Your task to perform on an android device: Go to Yahoo.com Image 0: 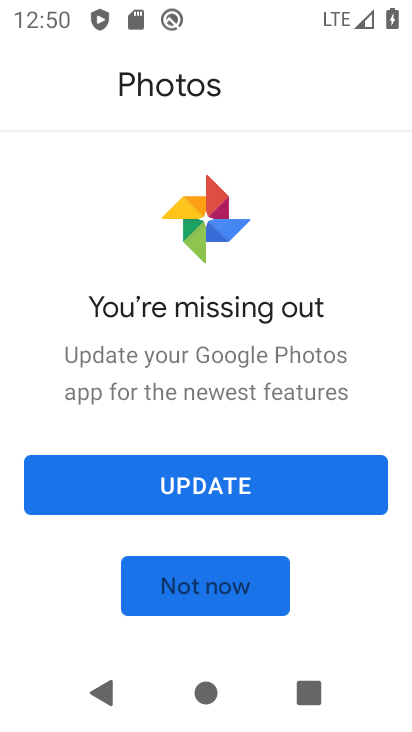
Step 0: press home button
Your task to perform on an android device: Go to Yahoo.com Image 1: 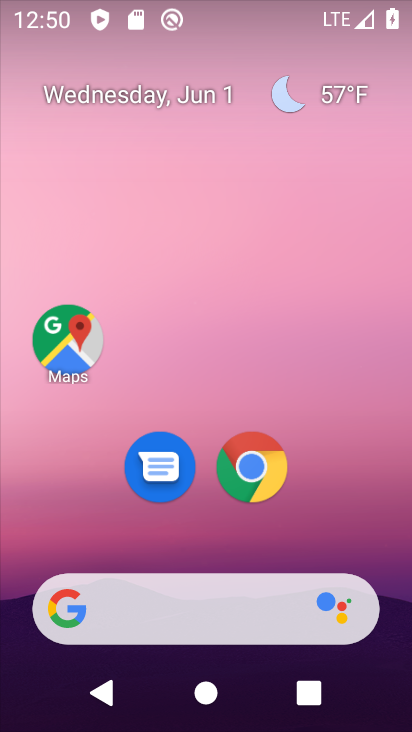
Step 1: drag from (377, 529) to (370, 170)
Your task to perform on an android device: Go to Yahoo.com Image 2: 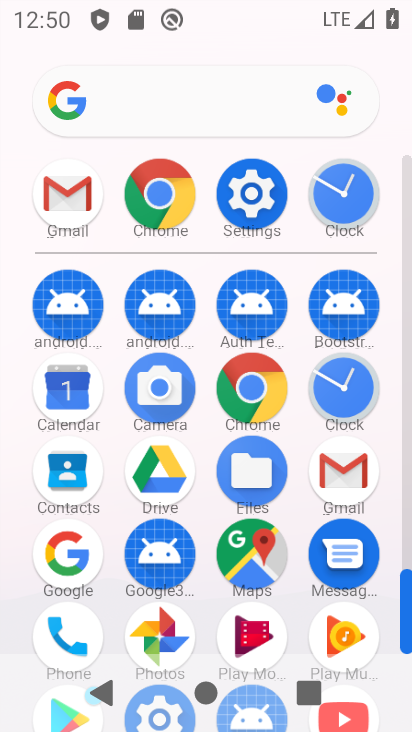
Step 2: click (262, 400)
Your task to perform on an android device: Go to Yahoo.com Image 3: 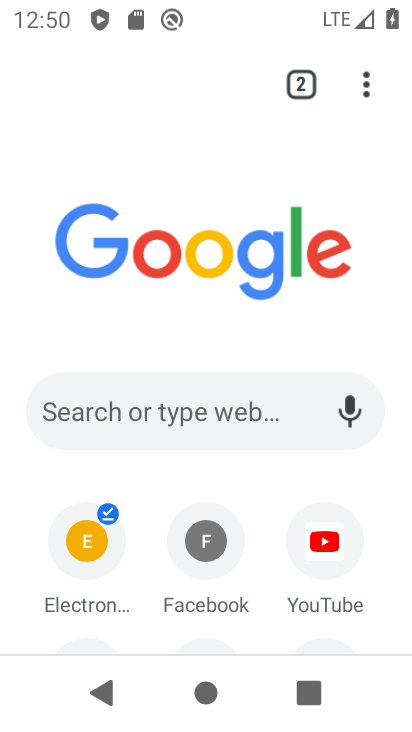
Step 3: drag from (268, 472) to (274, 308)
Your task to perform on an android device: Go to Yahoo.com Image 4: 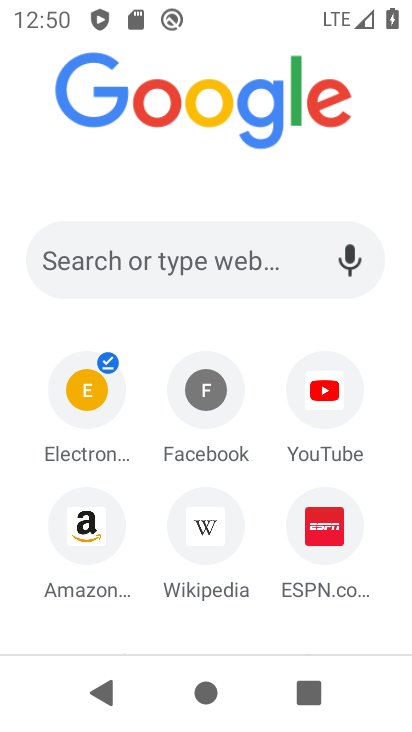
Step 4: click (214, 272)
Your task to perform on an android device: Go to Yahoo.com Image 5: 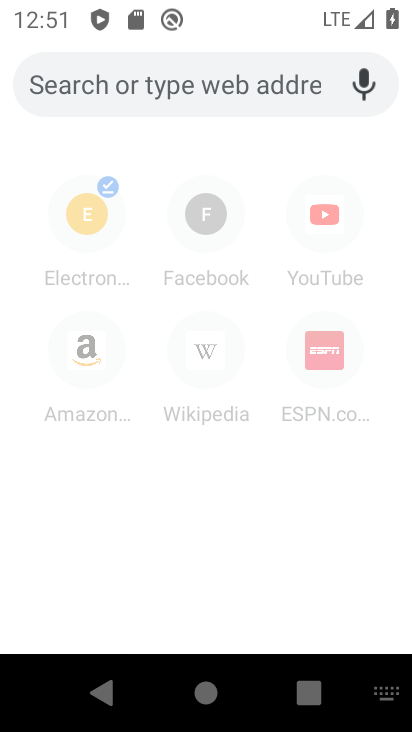
Step 5: type "yahoo.com"
Your task to perform on an android device: Go to Yahoo.com Image 6: 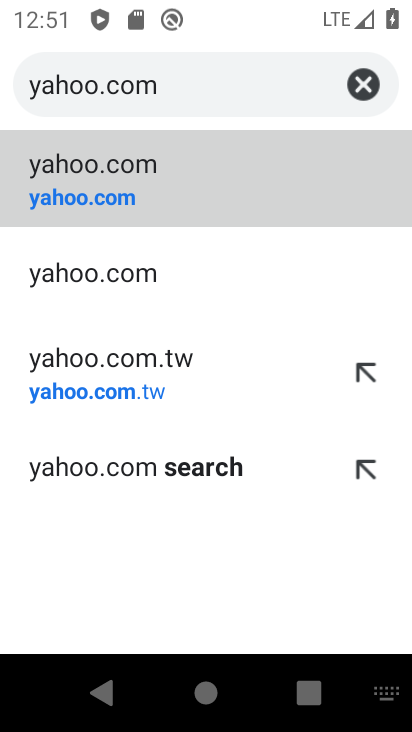
Step 6: click (260, 188)
Your task to perform on an android device: Go to Yahoo.com Image 7: 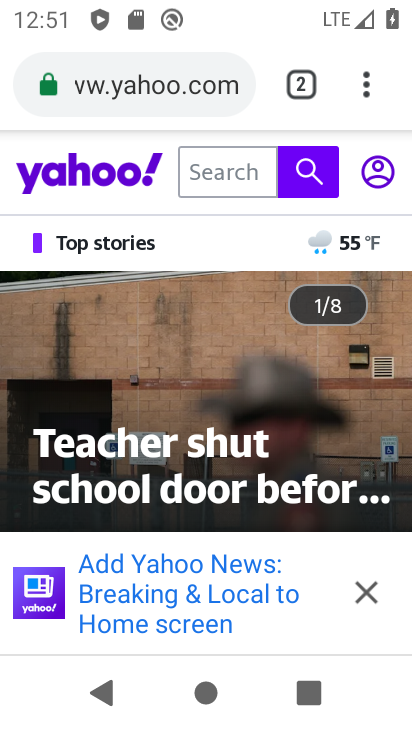
Step 7: task complete